Your task to perform on an android device: Open privacy settings Image 0: 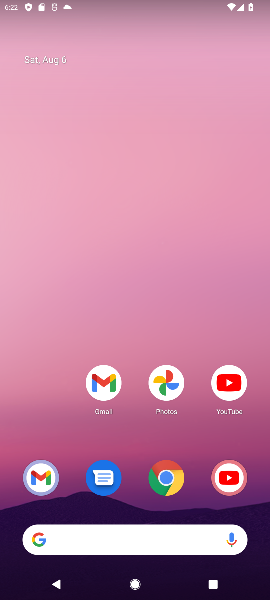
Step 0: press home button
Your task to perform on an android device: Open privacy settings Image 1: 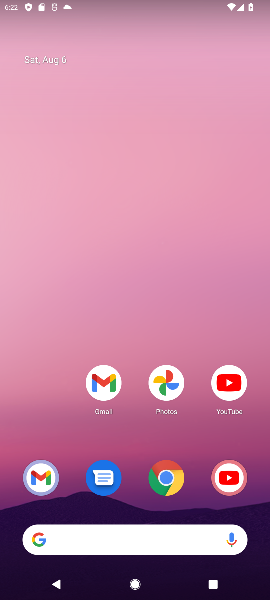
Step 1: drag from (146, 339) to (105, 40)
Your task to perform on an android device: Open privacy settings Image 2: 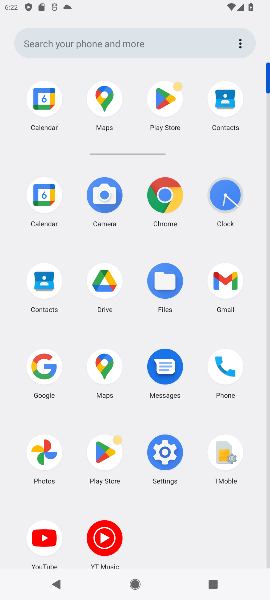
Step 2: click (167, 462)
Your task to perform on an android device: Open privacy settings Image 3: 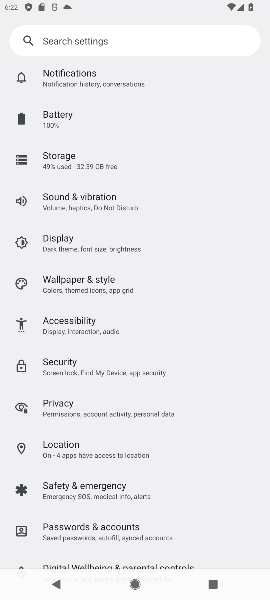
Step 3: click (73, 417)
Your task to perform on an android device: Open privacy settings Image 4: 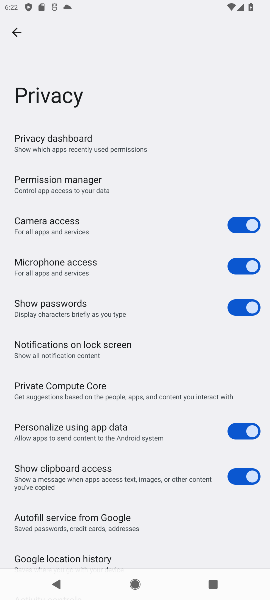
Step 4: task complete